Your task to perform on an android device: Do I have any events tomorrow? Image 0: 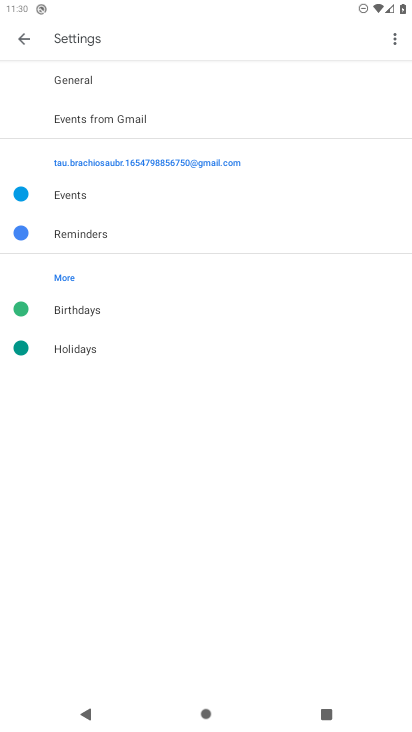
Step 0: drag from (148, 473) to (171, 303)
Your task to perform on an android device: Do I have any events tomorrow? Image 1: 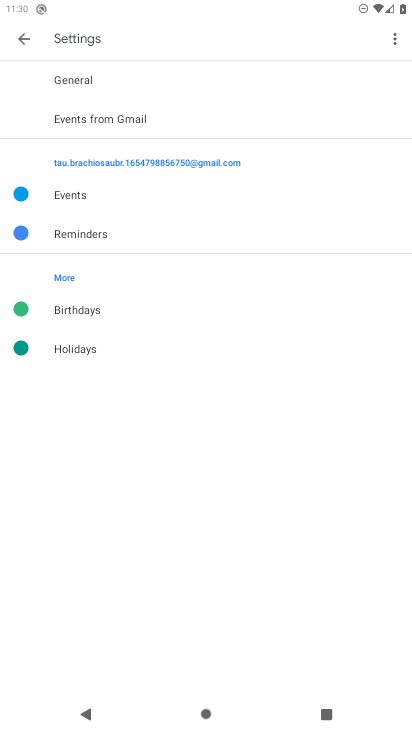
Step 1: press back button
Your task to perform on an android device: Do I have any events tomorrow? Image 2: 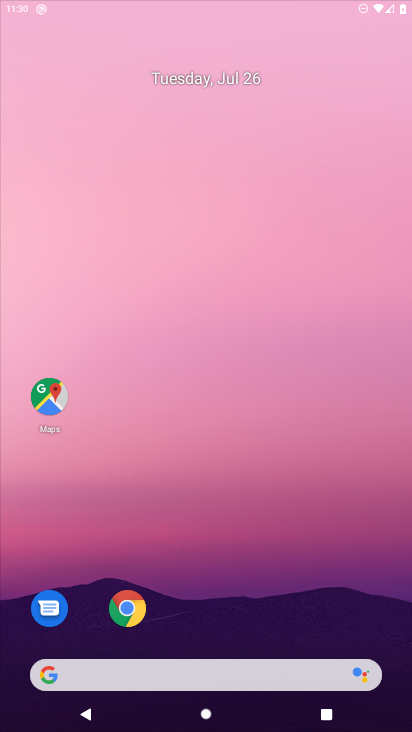
Step 2: press home button
Your task to perform on an android device: Do I have any events tomorrow? Image 3: 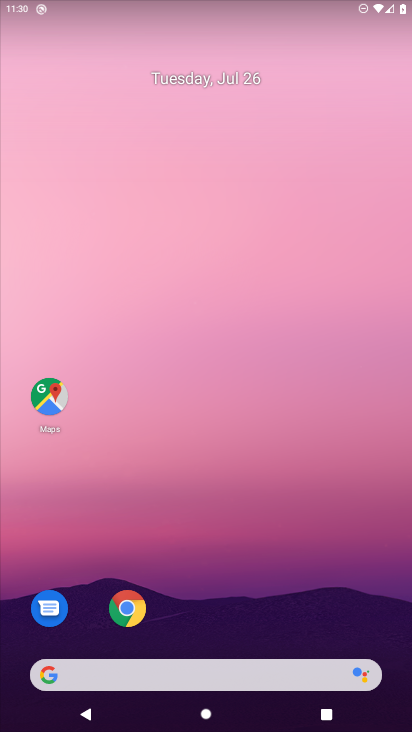
Step 3: drag from (231, 617) to (186, 61)
Your task to perform on an android device: Do I have any events tomorrow? Image 4: 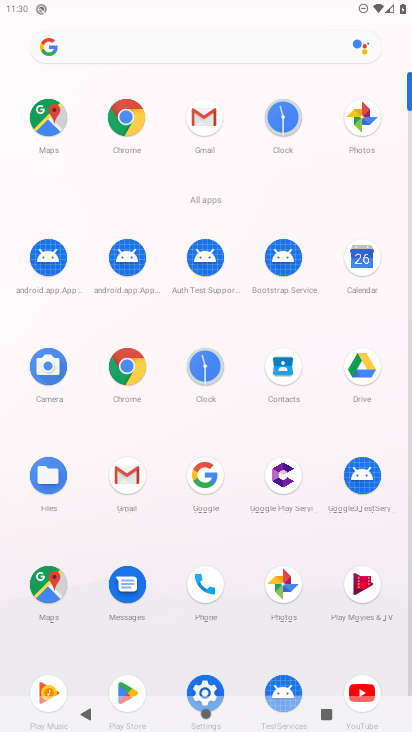
Step 4: drag from (229, 616) to (229, 331)
Your task to perform on an android device: Do I have any events tomorrow? Image 5: 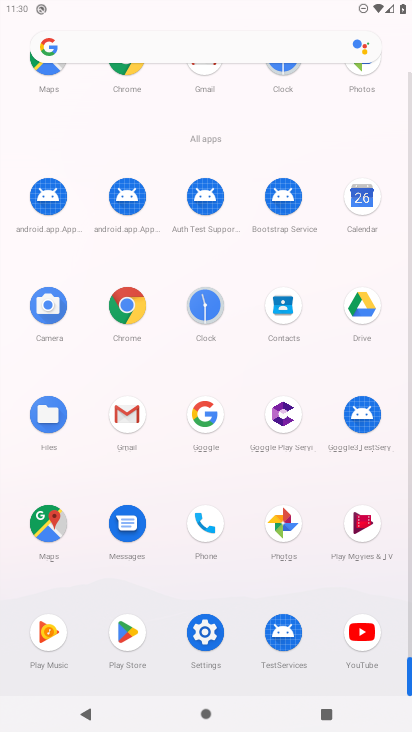
Step 5: click (364, 196)
Your task to perform on an android device: Do I have any events tomorrow? Image 6: 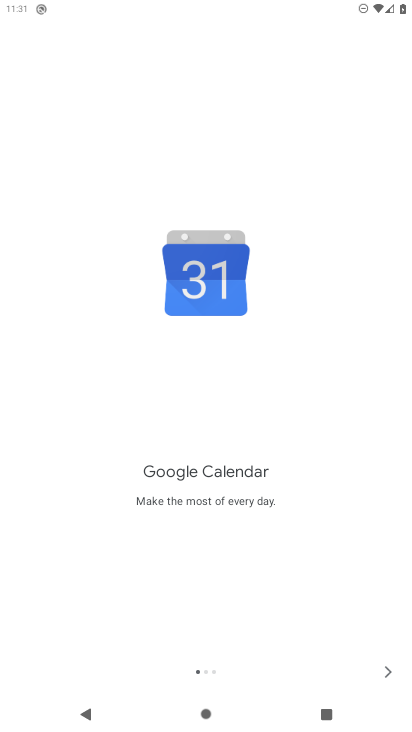
Step 6: drag from (216, 598) to (216, 385)
Your task to perform on an android device: Do I have any events tomorrow? Image 7: 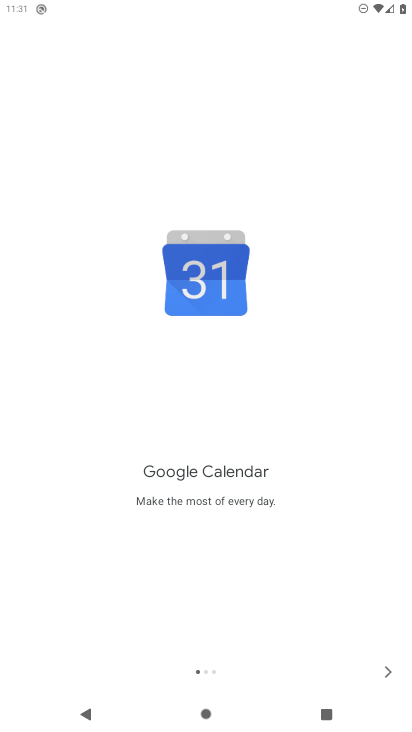
Step 7: click (389, 681)
Your task to perform on an android device: Do I have any events tomorrow? Image 8: 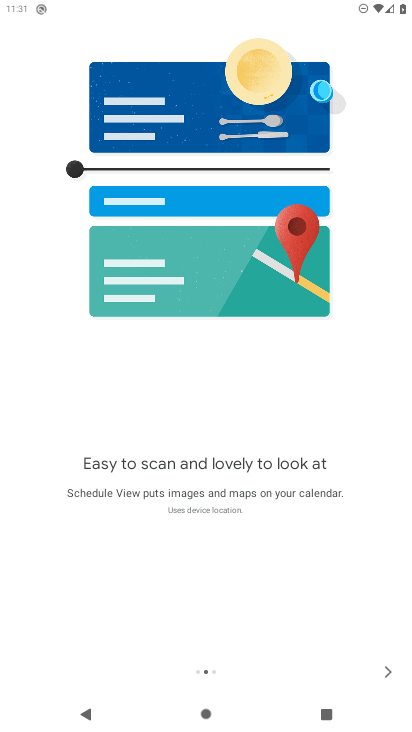
Step 8: click (387, 675)
Your task to perform on an android device: Do I have any events tomorrow? Image 9: 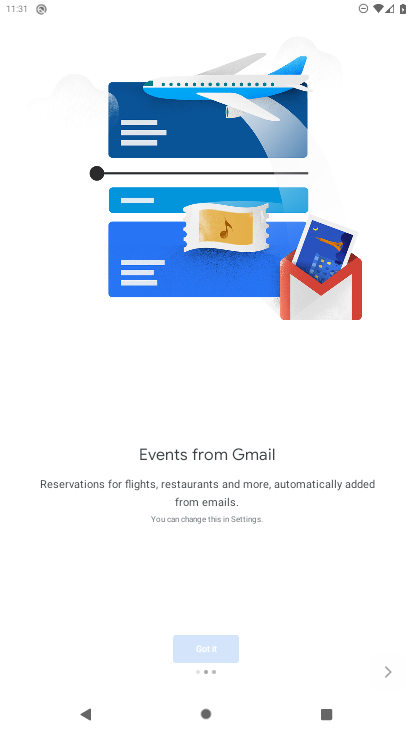
Step 9: click (387, 674)
Your task to perform on an android device: Do I have any events tomorrow? Image 10: 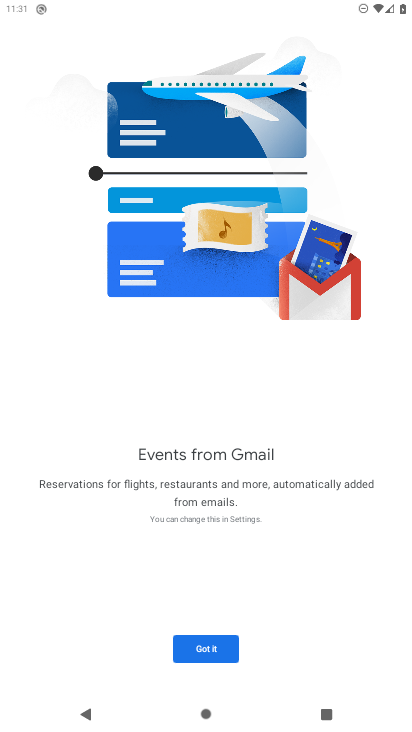
Step 10: click (211, 645)
Your task to perform on an android device: Do I have any events tomorrow? Image 11: 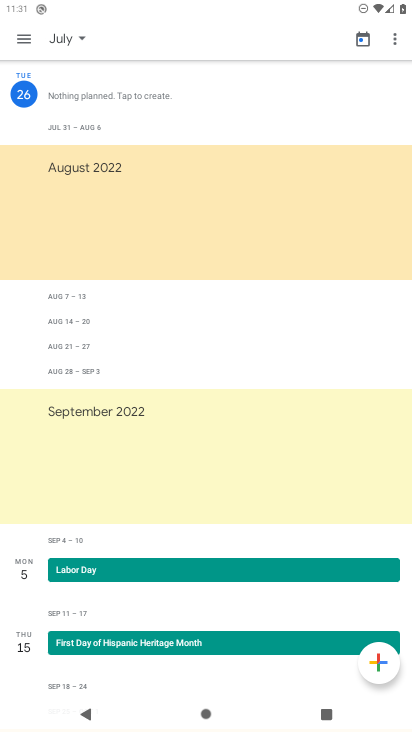
Step 11: drag from (199, 608) to (273, 124)
Your task to perform on an android device: Do I have any events tomorrow? Image 12: 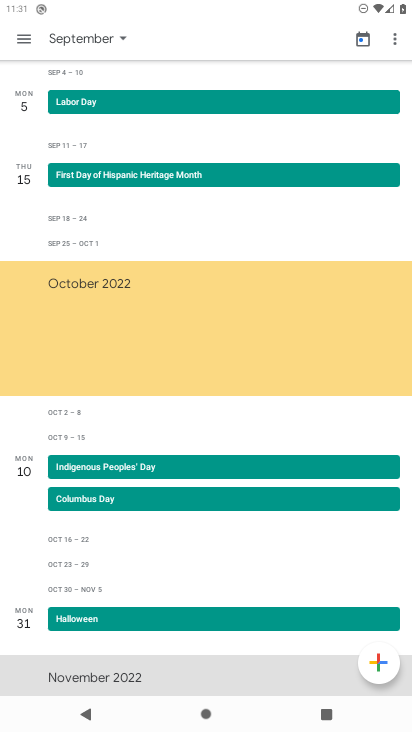
Step 12: click (93, 45)
Your task to perform on an android device: Do I have any events tomorrow? Image 13: 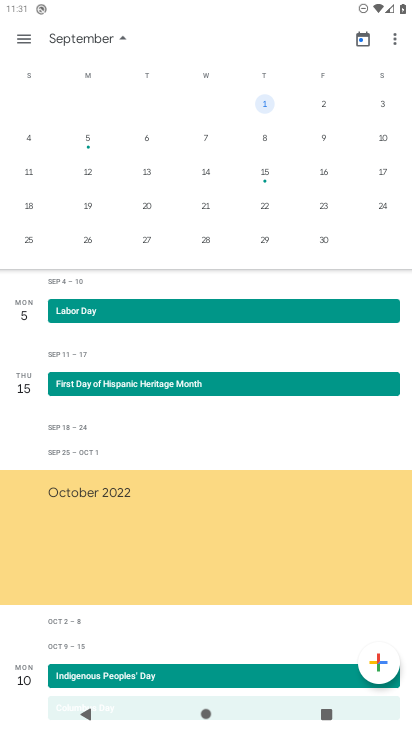
Step 13: click (369, 37)
Your task to perform on an android device: Do I have any events tomorrow? Image 14: 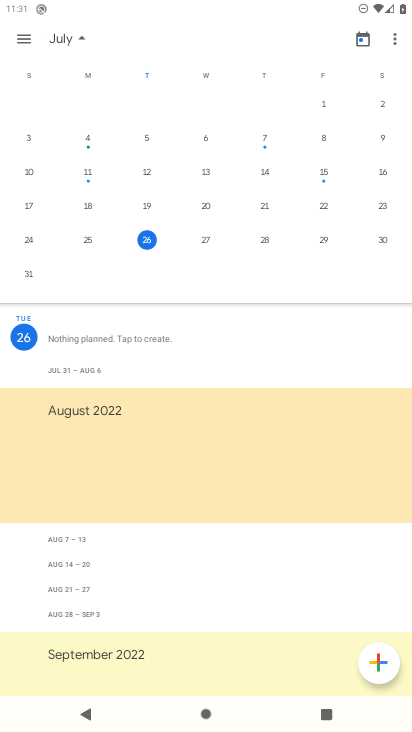
Step 14: click (204, 241)
Your task to perform on an android device: Do I have any events tomorrow? Image 15: 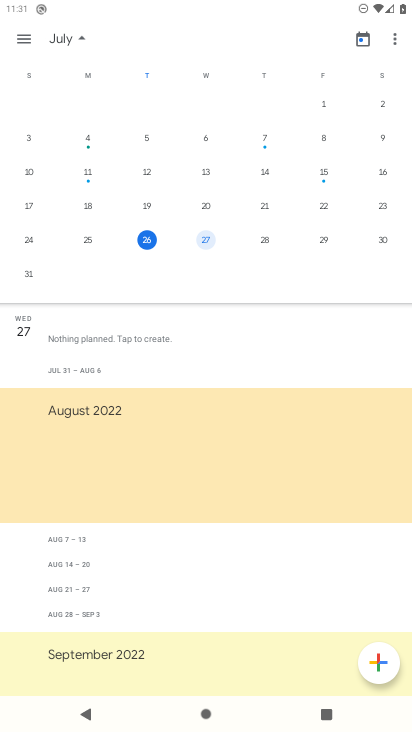
Step 15: task complete